Your task to perform on an android device: open app "Move to iOS" Image 0: 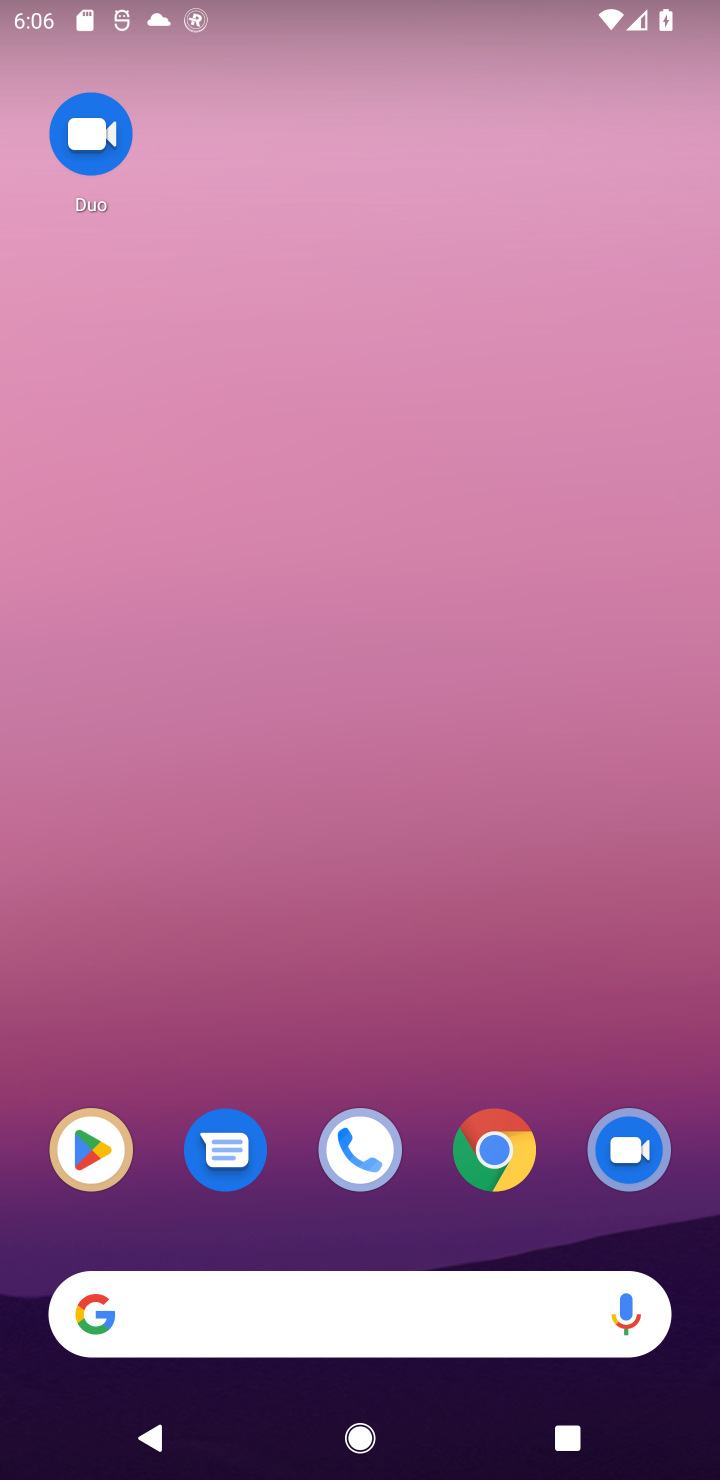
Step 0: click (108, 1123)
Your task to perform on an android device: open app "Move to iOS" Image 1: 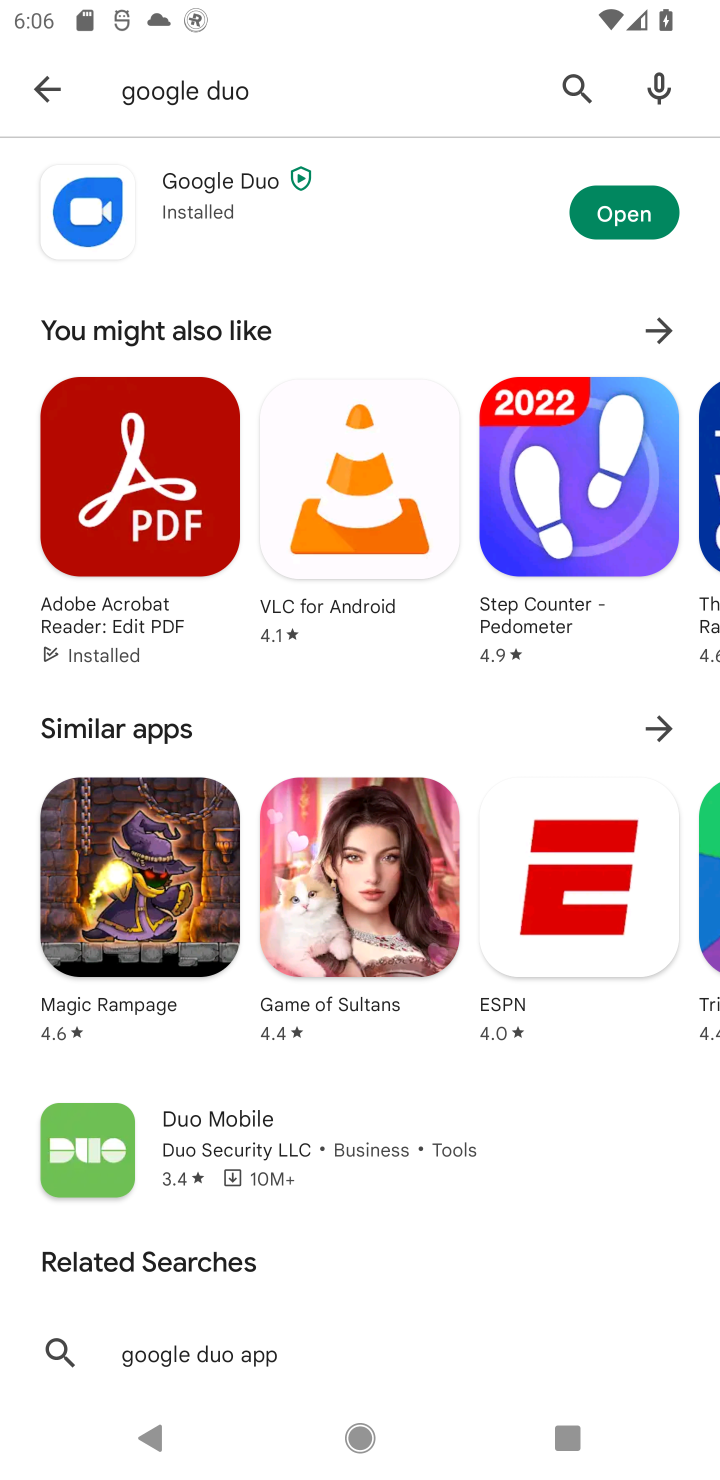
Step 1: click (583, 81)
Your task to perform on an android device: open app "Move to iOS" Image 2: 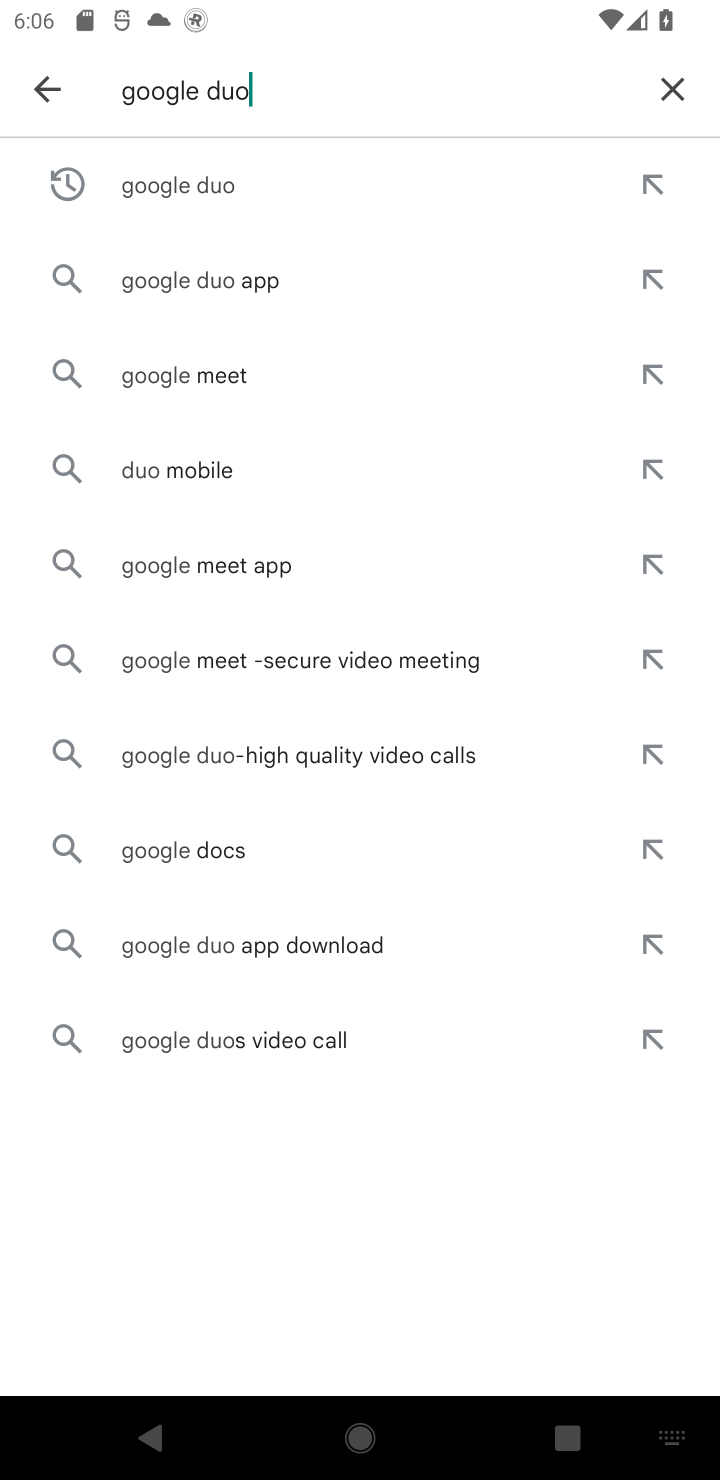
Step 2: click (677, 92)
Your task to perform on an android device: open app "Move to iOS" Image 3: 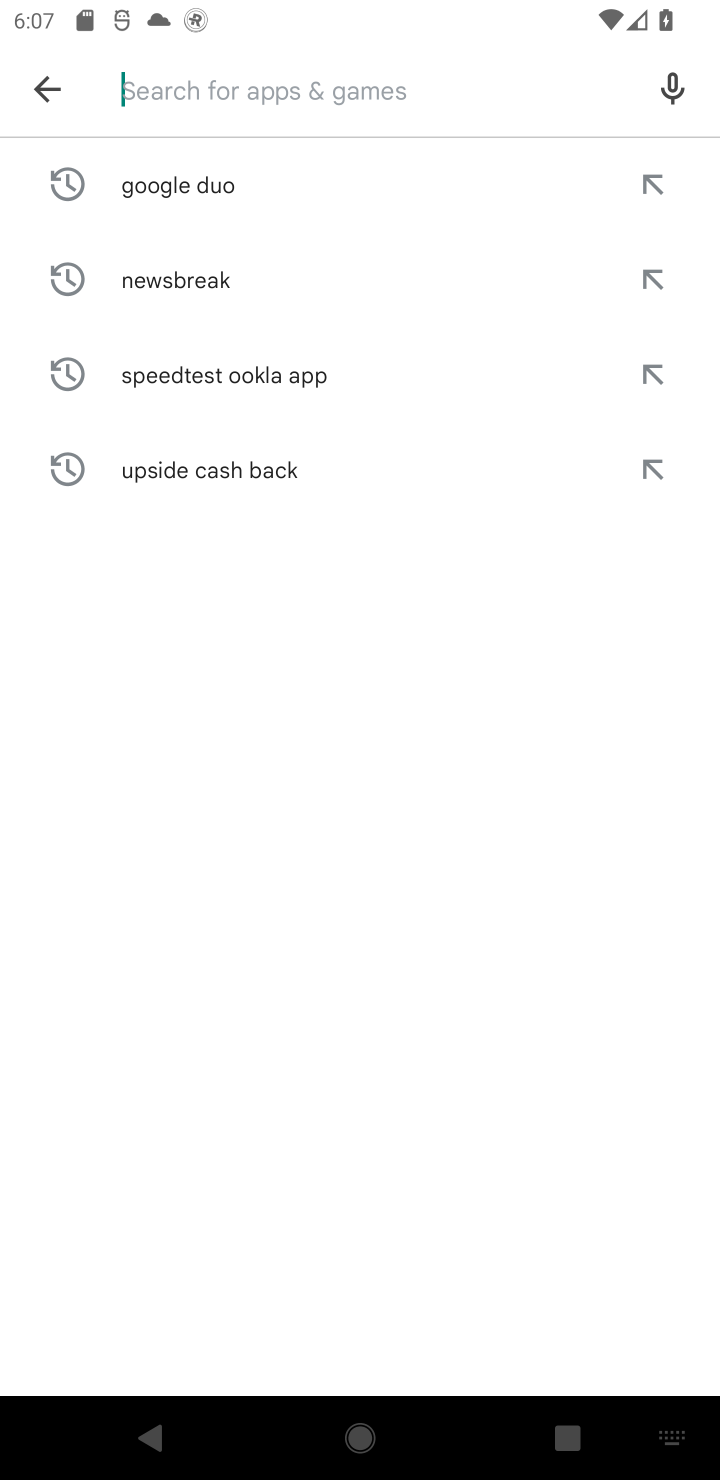
Step 3: type "move iso"
Your task to perform on an android device: open app "Move to iOS" Image 4: 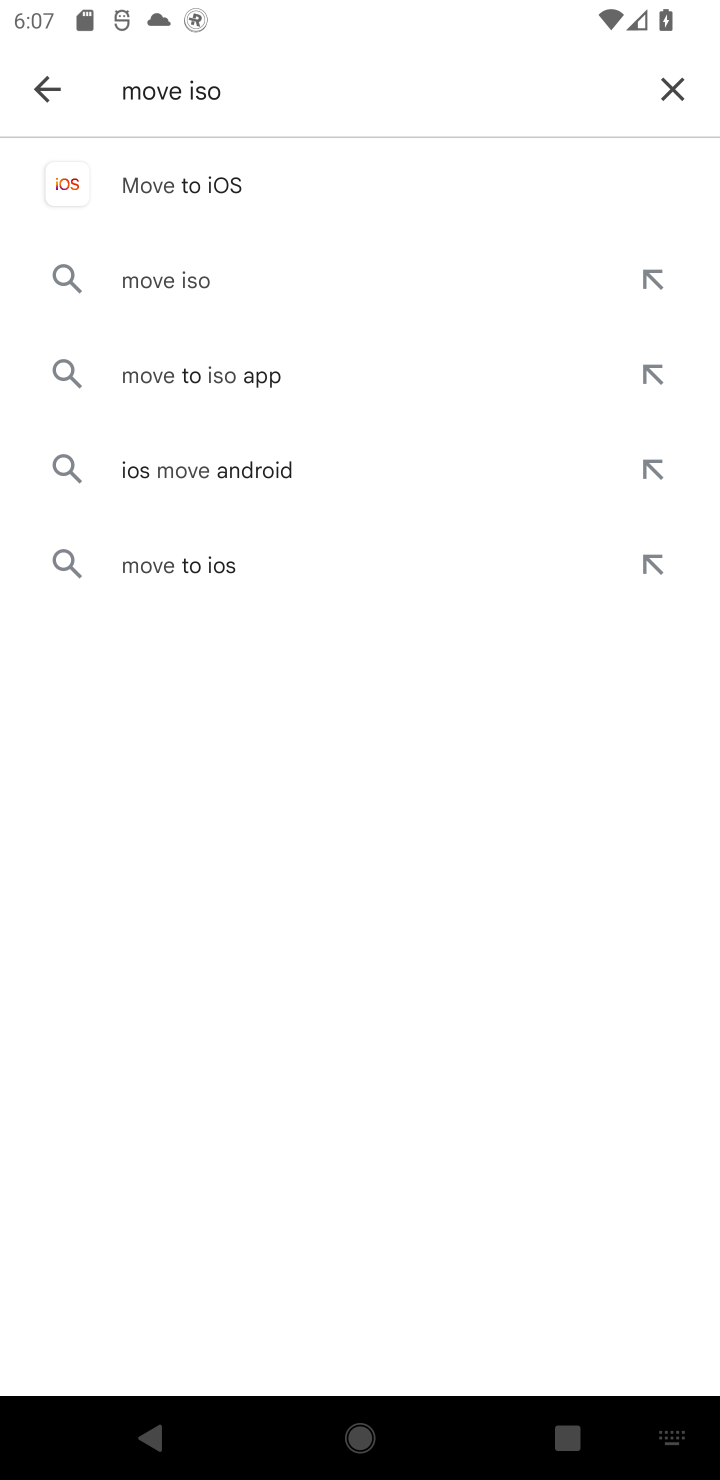
Step 4: click (237, 194)
Your task to perform on an android device: open app "Move to iOS" Image 5: 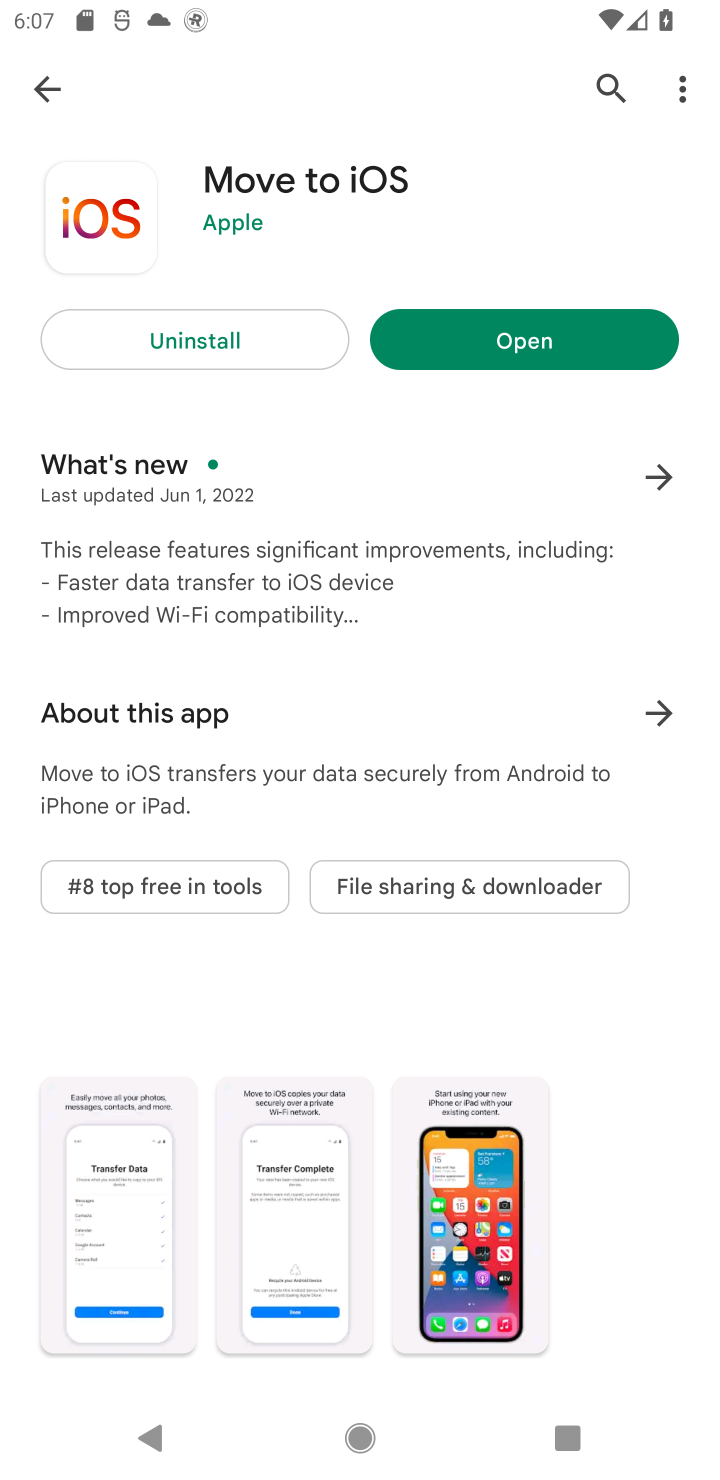
Step 5: task complete